Your task to perform on an android device: toggle location history Image 0: 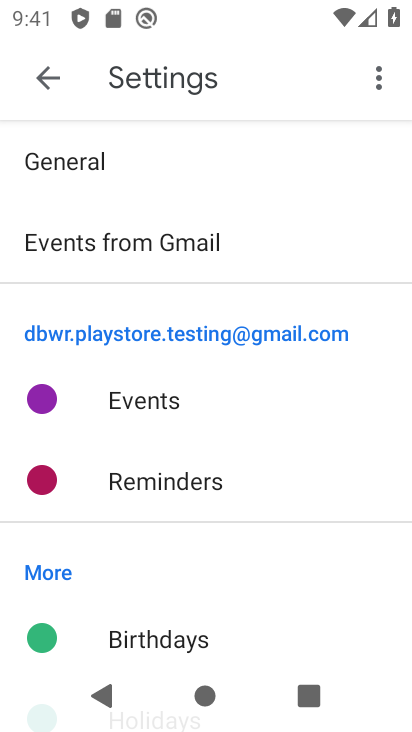
Step 0: press home button
Your task to perform on an android device: toggle location history Image 1: 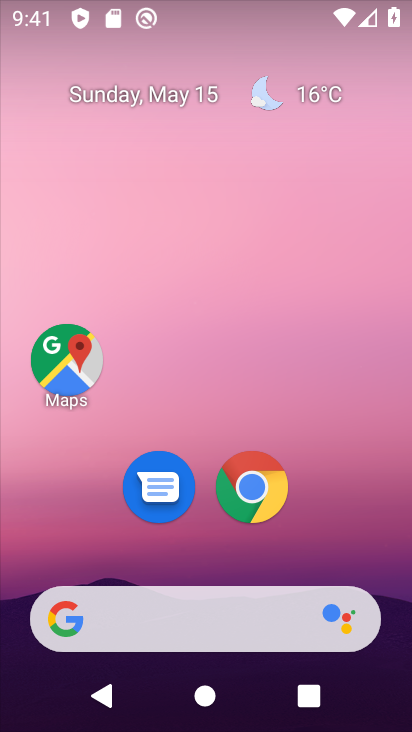
Step 1: drag from (404, 625) to (353, 425)
Your task to perform on an android device: toggle location history Image 2: 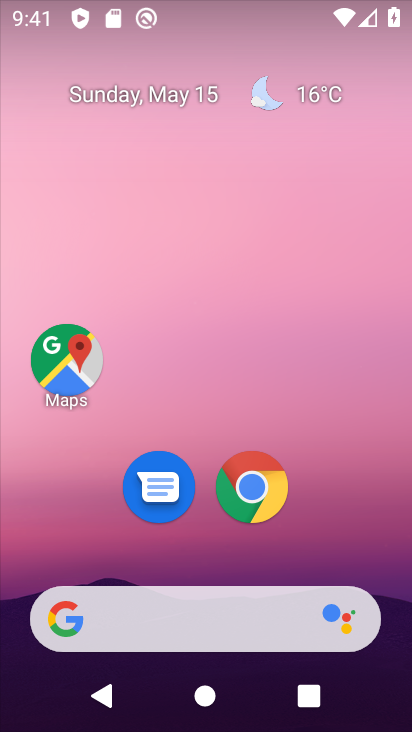
Step 2: click (67, 364)
Your task to perform on an android device: toggle location history Image 3: 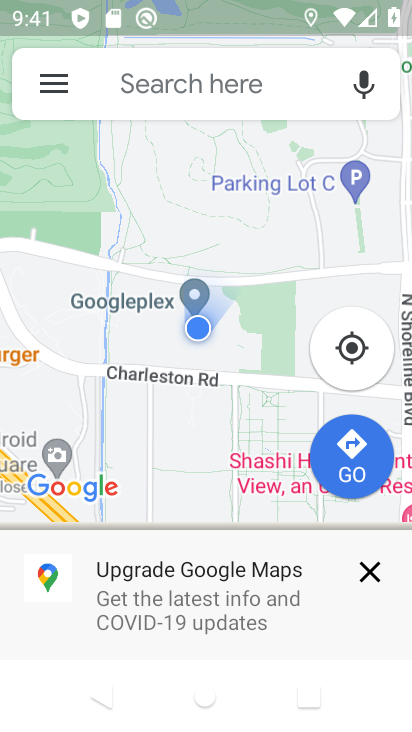
Step 3: click (51, 81)
Your task to perform on an android device: toggle location history Image 4: 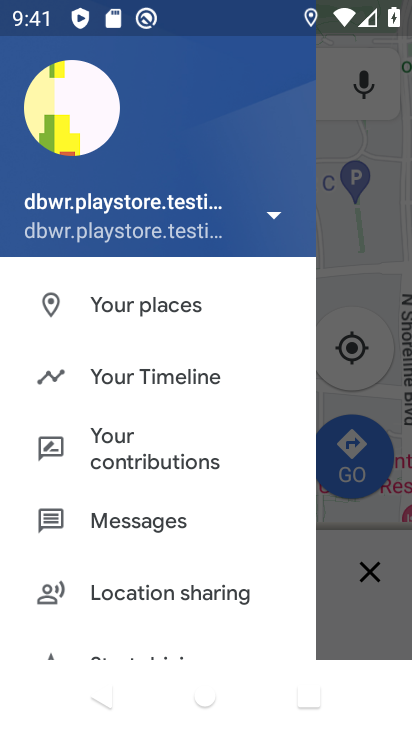
Step 4: drag from (240, 570) to (229, 147)
Your task to perform on an android device: toggle location history Image 5: 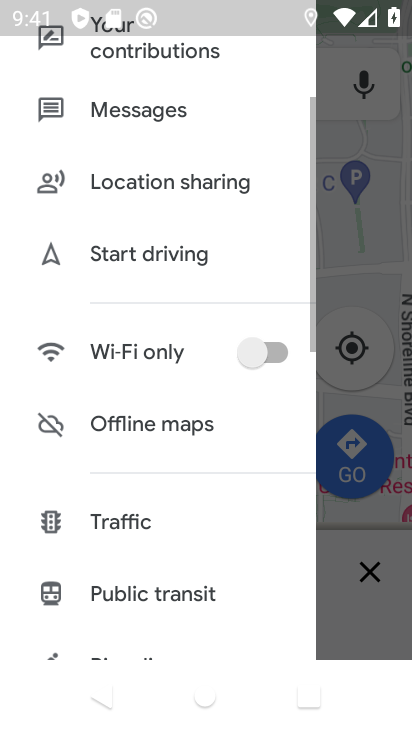
Step 5: drag from (260, 583) to (211, 342)
Your task to perform on an android device: toggle location history Image 6: 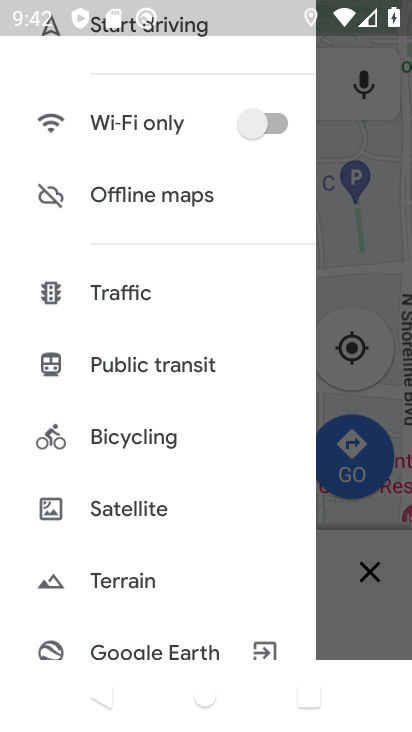
Step 6: drag from (214, 606) to (209, 129)
Your task to perform on an android device: toggle location history Image 7: 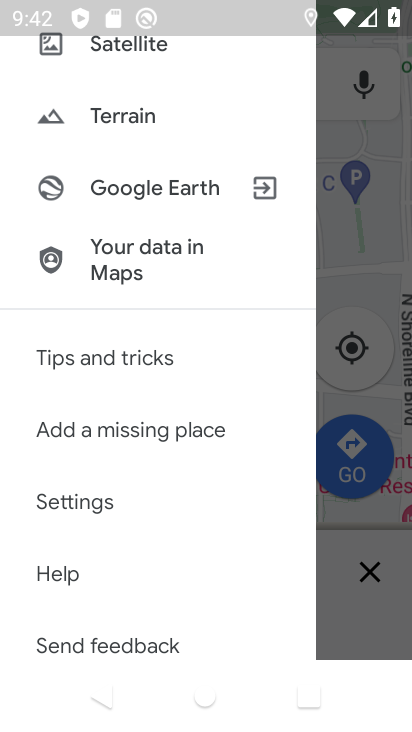
Step 7: click (46, 492)
Your task to perform on an android device: toggle location history Image 8: 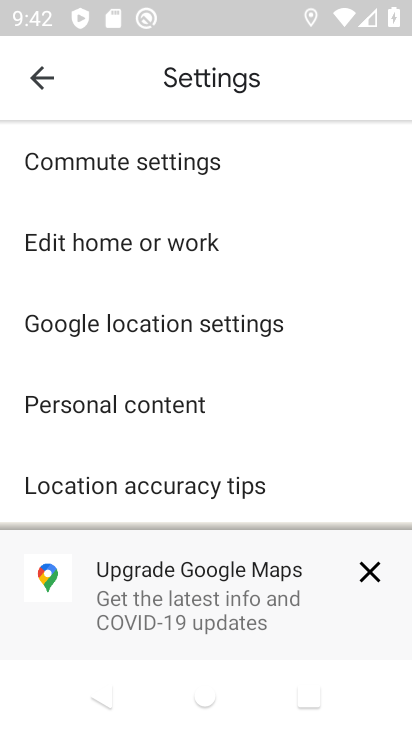
Step 8: click (109, 411)
Your task to perform on an android device: toggle location history Image 9: 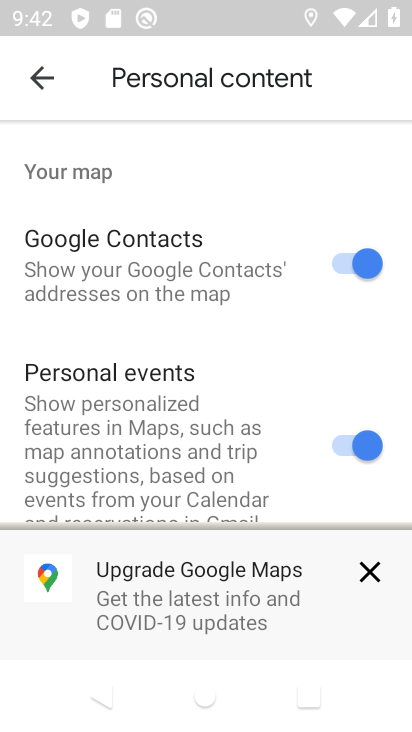
Step 9: drag from (249, 511) to (233, 115)
Your task to perform on an android device: toggle location history Image 10: 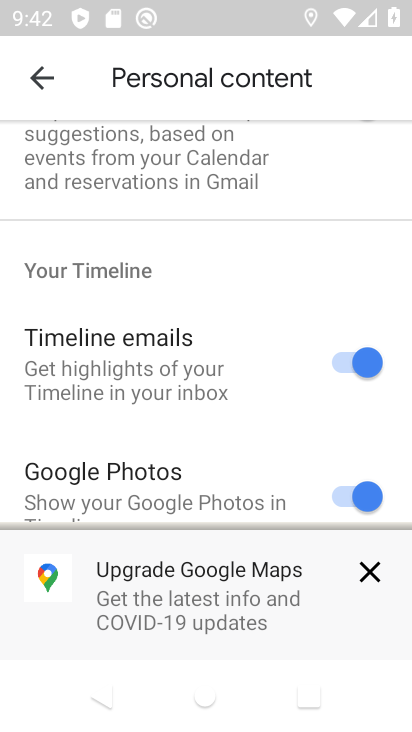
Step 10: click (369, 567)
Your task to perform on an android device: toggle location history Image 11: 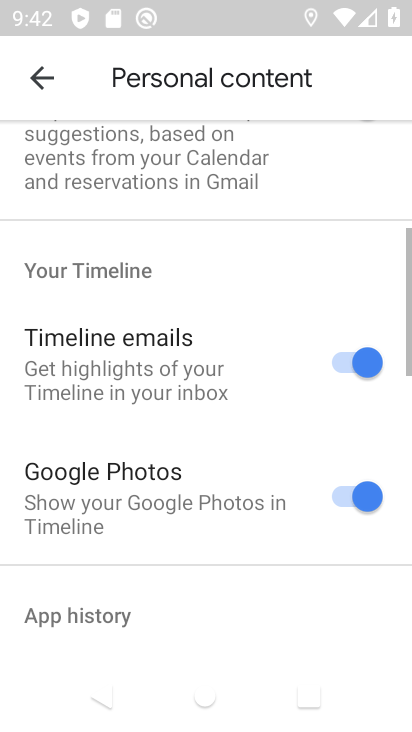
Step 11: drag from (196, 537) to (166, 65)
Your task to perform on an android device: toggle location history Image 12: 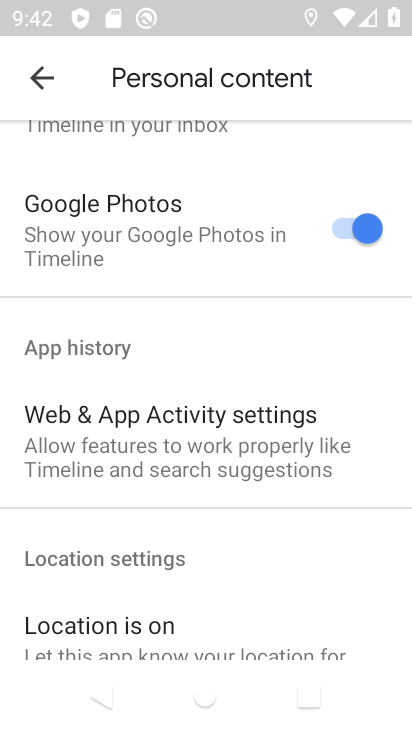
Step 12: drag from (229, 622) to (197, 211)
Your task to perform on an android device: toggle location history Image 13: 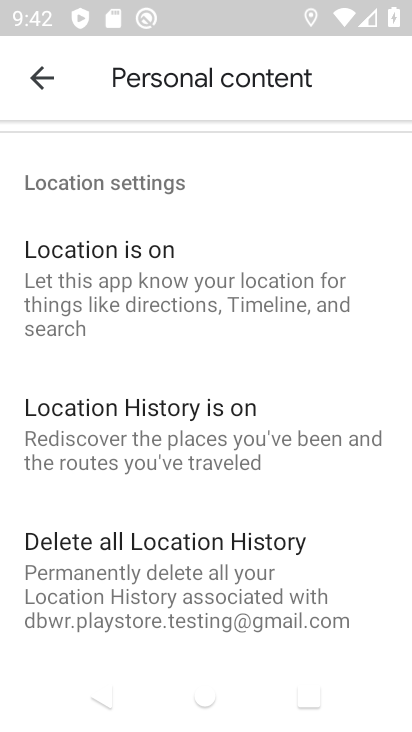
Step 13: click (138, 439)
Your task to perform on an android device: toggle location history Image 14: 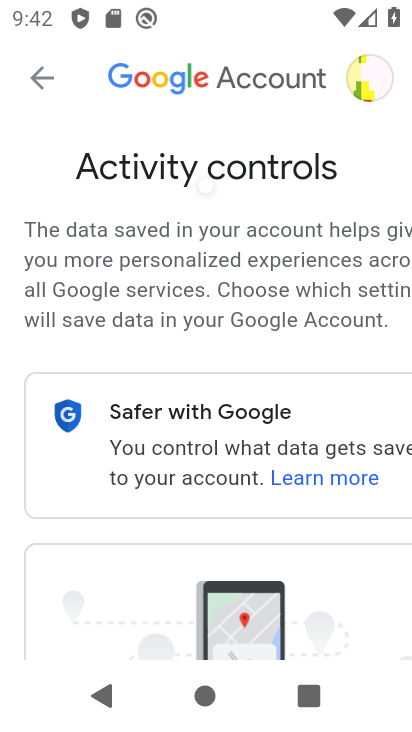
Step 14: drag from (374, 648) to (273, 193)
Your task to perform on an android device: toggle location history Image 15: 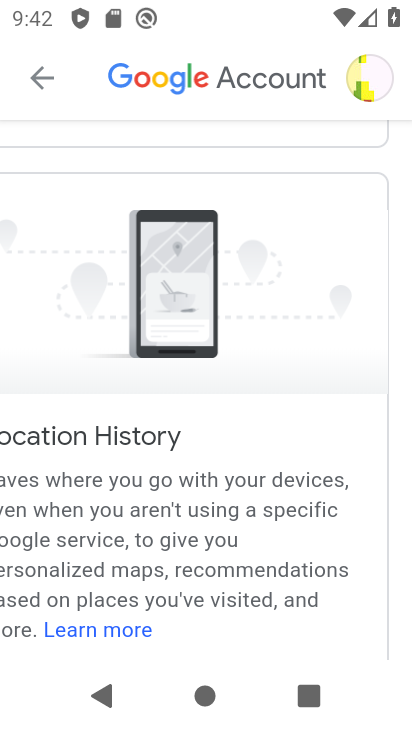
Step 15: drag from (321, 589) to (258, 151)
Your task to perform on an android device: toggle location history Image 16: 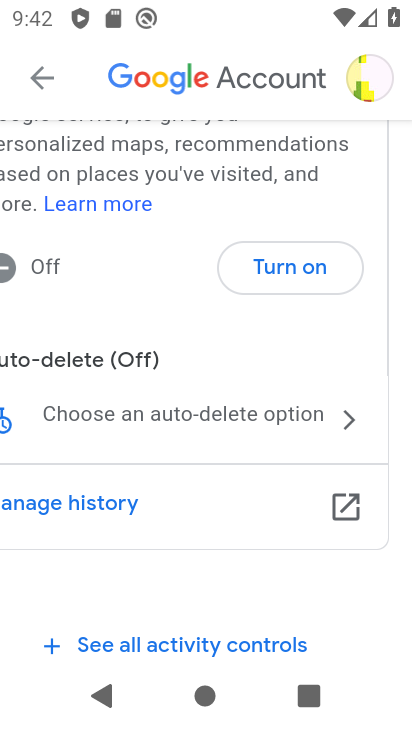
Step 16: click (281, 269)
Your task to perform on an android device: toggle location history Image 17: 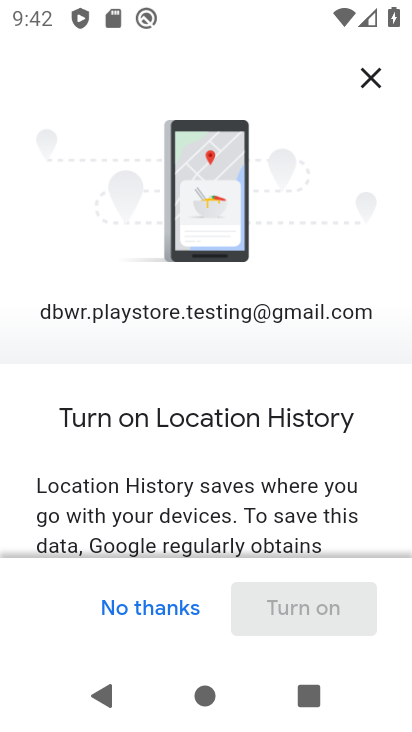
Step 17: drag from (306, 529) to (204, 6)
Your task to perform on an android device: toggle location history Image 18: 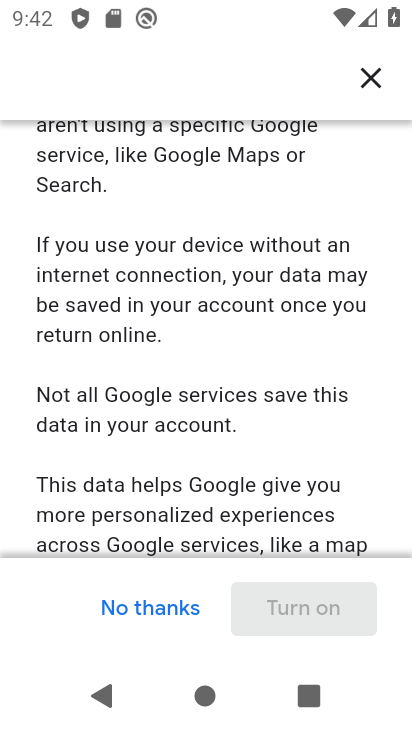
Step 18: drag from (291, 534) to (220, 60)
Your task to perform on an android device: toggle location history Image 19: 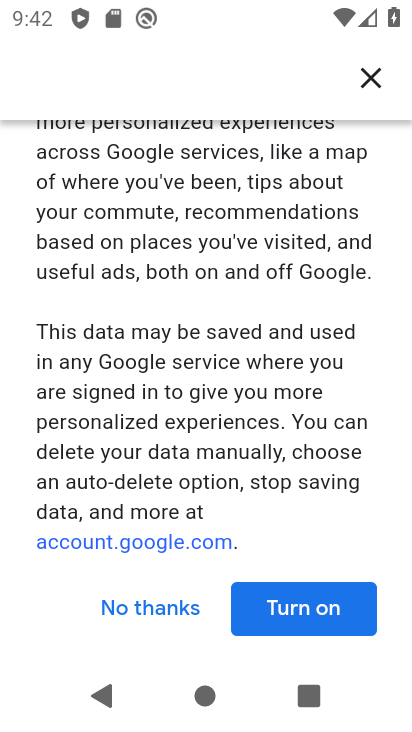
Step 19: click (306, 622)
Your task to perform on an android device: toggle location history Image 20: 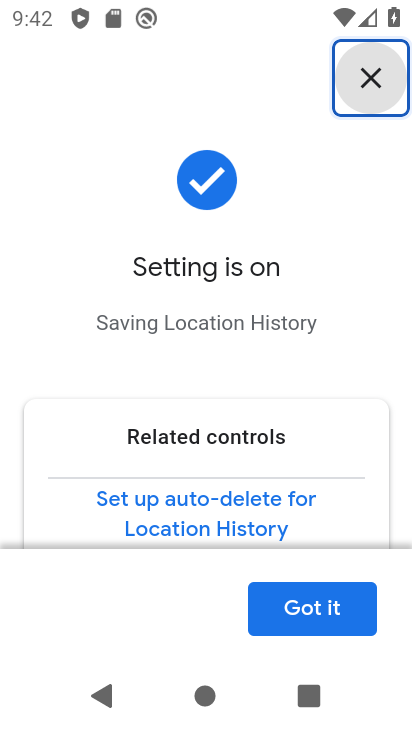
Step 20: click (304, 613)
Your task to perform on an android device: toggle location history Image 21: 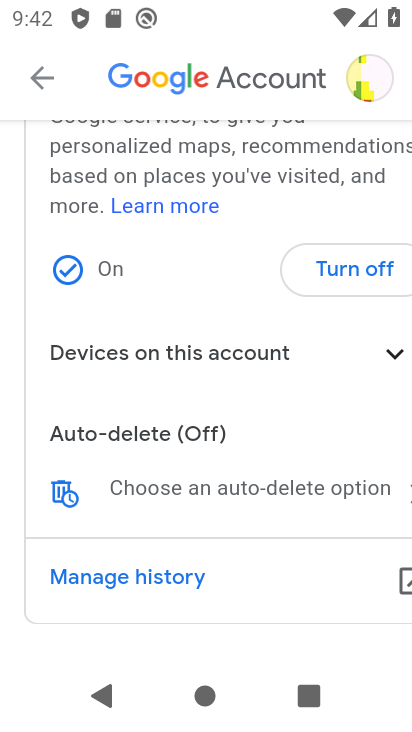
Step 21: task complete